Your task to perform on an android device: Go to wifi settings Image 0: 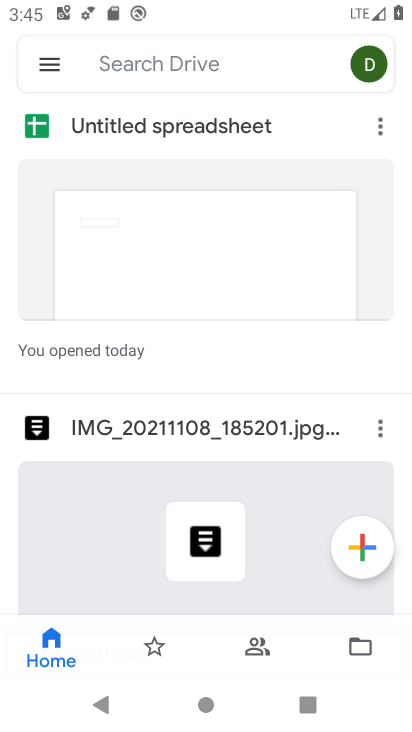
Step 0: press home button
Your task to perform on an android device: Go to wifi settings Image 1: 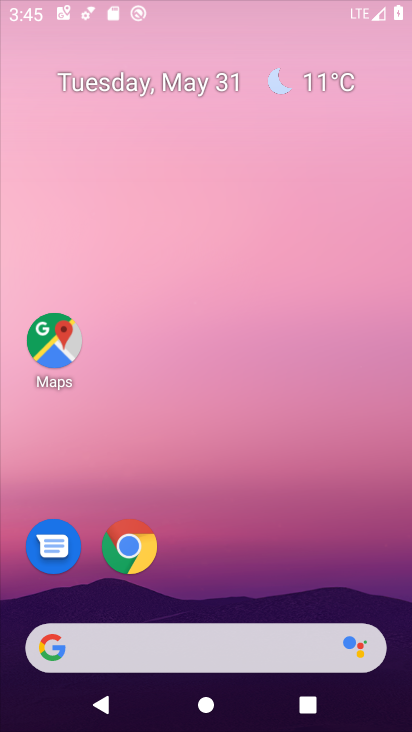
Step 1: drag from (301, 348) to (177, 5)
Your task to perform on an android device: Go to wifi settings Image 2: 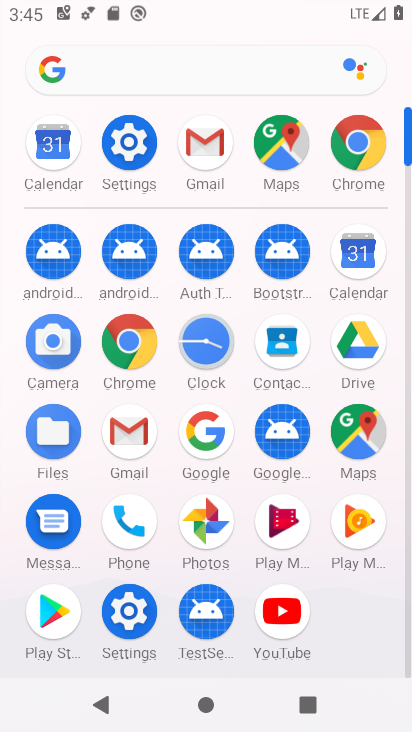
Step 2: click (128, 155)
Your task to perform on an android device: Go to wifi settings Image 3: 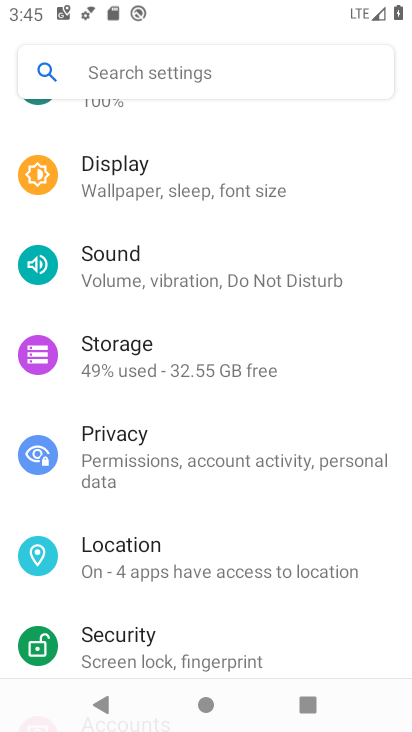
Step 3: drag from (210, 146) to (175, 724)
Your task to perform on an android device: Go to wifi settings Image 4: 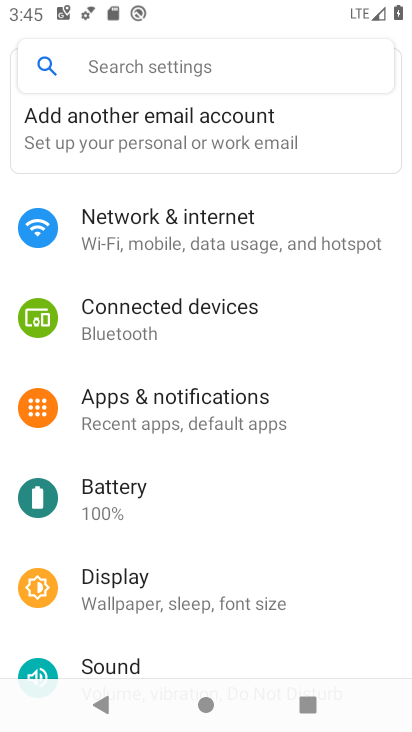
Step 4: click (200, 209)
Your task to perform on an android device: Go to wifi settings Image 5: 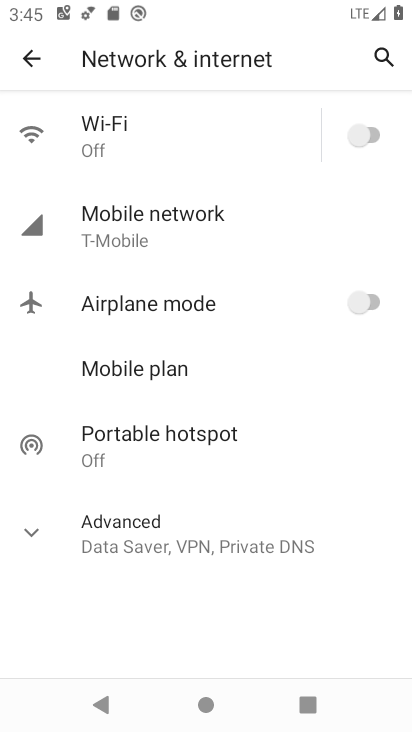
Step 5: click (224, 120)
Your task to perform on an android device: Go to wifi settings Image 6: 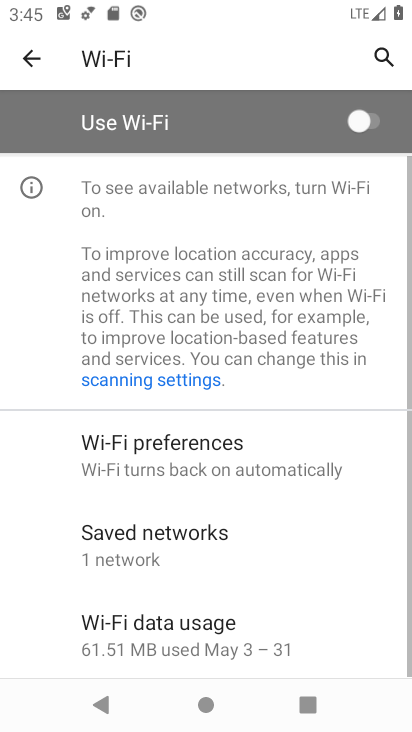
Step 6: task complete